Your task to perform on an android device: open a bookmark in the chrome app Image 0: 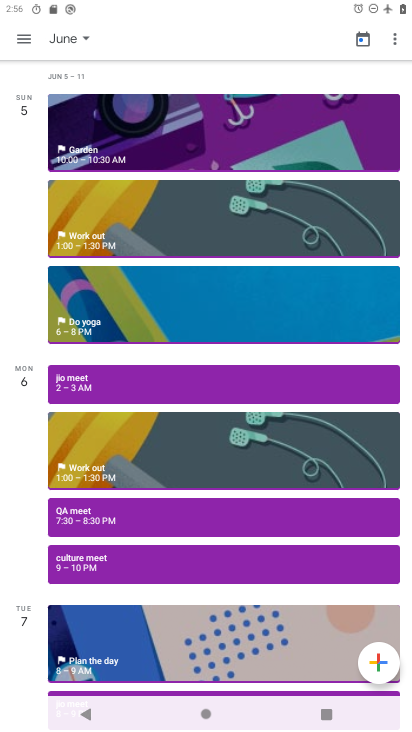
Step 0: press home button
Your task to perform on an android device: open a bookmark in the chrome app Image 1: 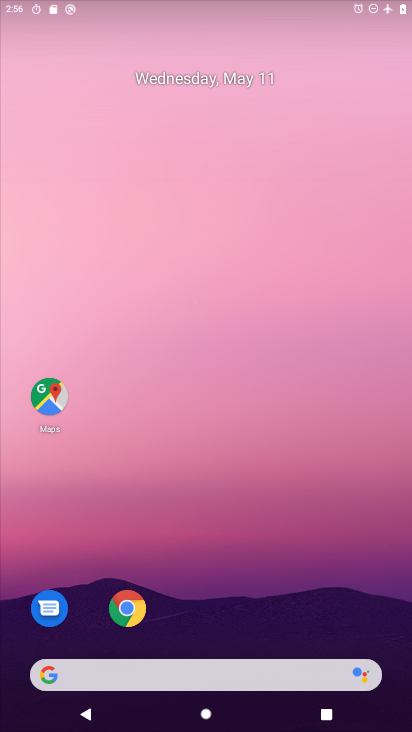
Step 1: drag from (240, 623) to (228, 170)
Your task to perform on an android device: open a bookmark in the chrome app Image 2: 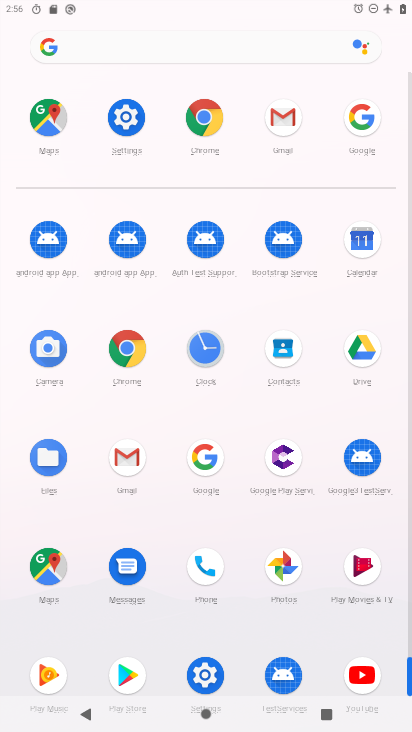
Step 2: click (200, 154)
Your task to perform on an android device: open a bookmark in the chrome app Image 3: 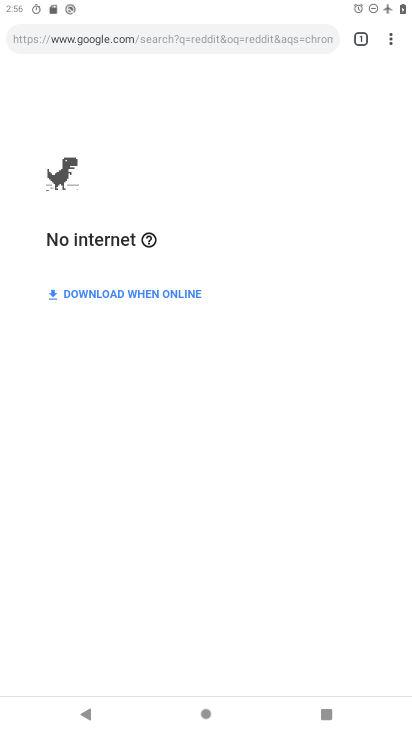
Step 3: click (392, 35)
Your task to perform on an android device: open a bookmark in the chrome app Image 4: 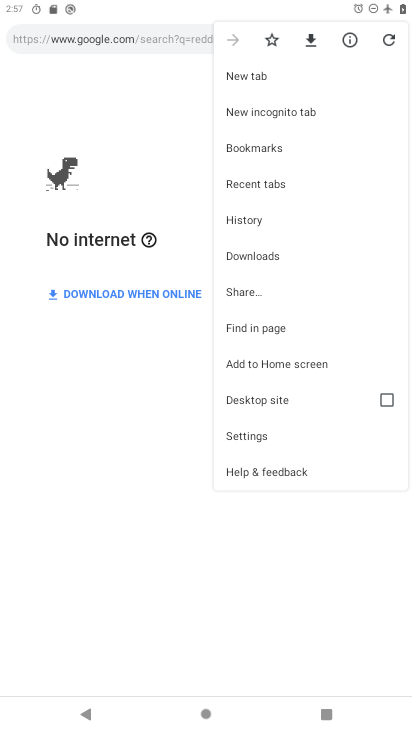
Step 4: click (268, 146)
Your task to perform on an android device: open a bookmark in the chrome app Image 5: 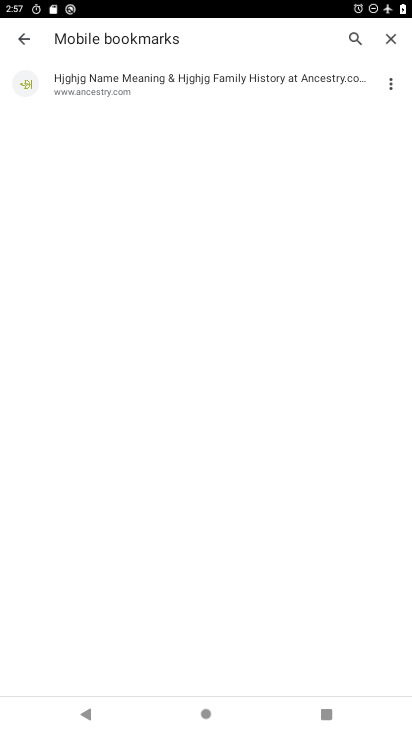
Step 5: click (232, 97)
Your task to perform on an android device: open a bookmark in the chrome app Image 6: 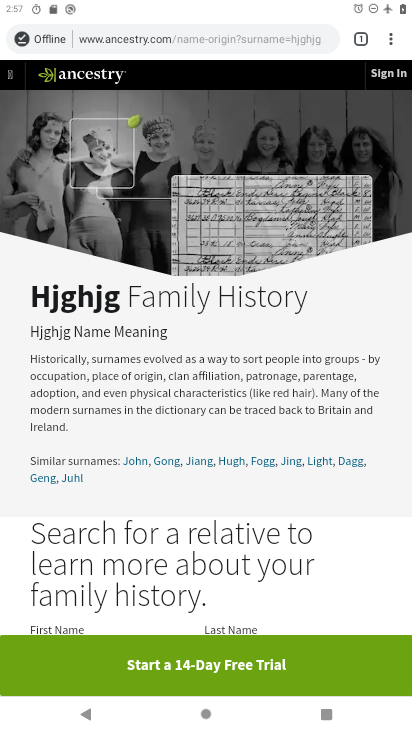
Step 6: task complete